Your task to perform on an android device: check out phone information Image 0: 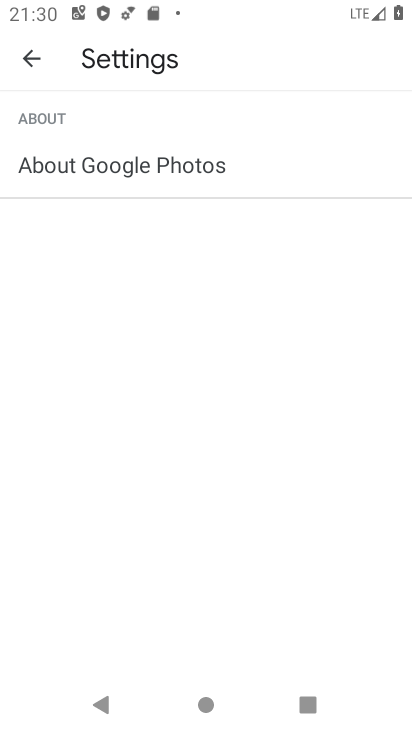
Step 0: press home button
Your task to perform on an android device: check out phone information Image 1: 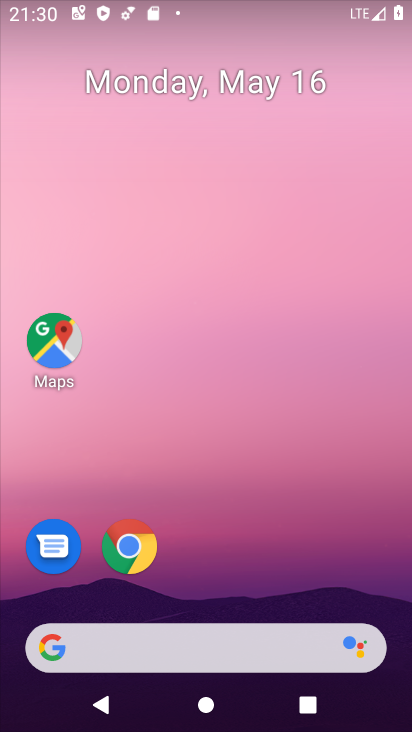
Step 1: drag from (288, 675) to (295, 181)
Your task to perform on an android device: check out phone information Image 2: 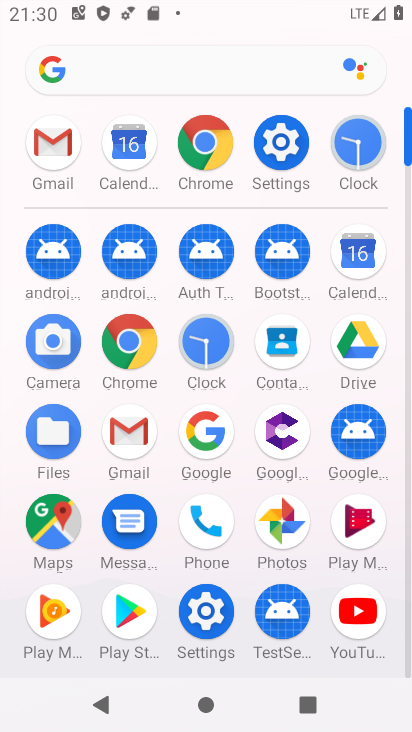
Step 2: click (264, 151)
Your task to perform on an android device: check out phone information Image 3: 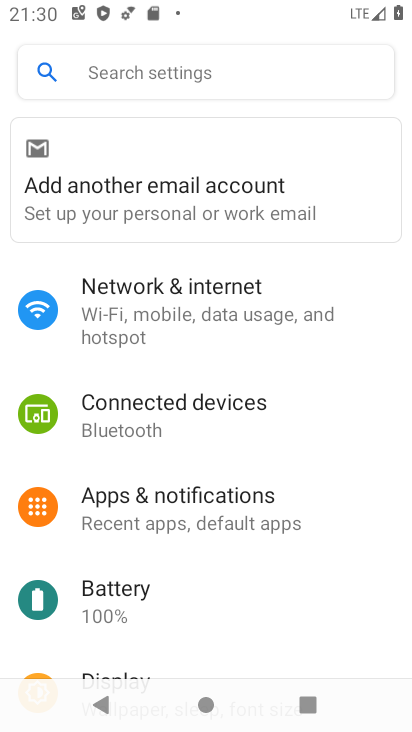
Step 3: click (151, 65)
Your task to perform on an android device: check out phone information Image 4: 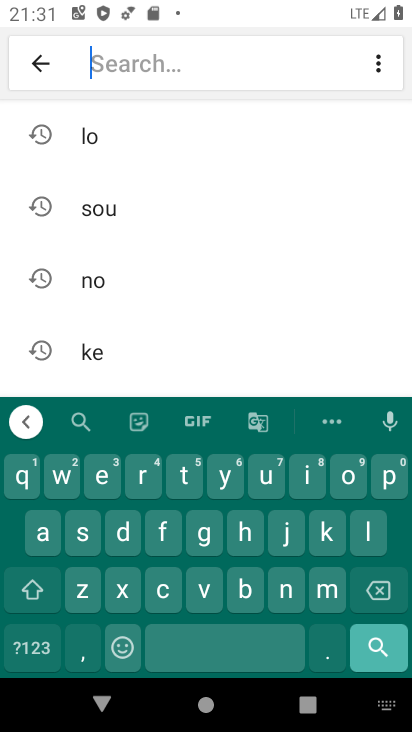
Step 4: click (31, 540)
Your task to perform on an android device: check out phone information Image 5: 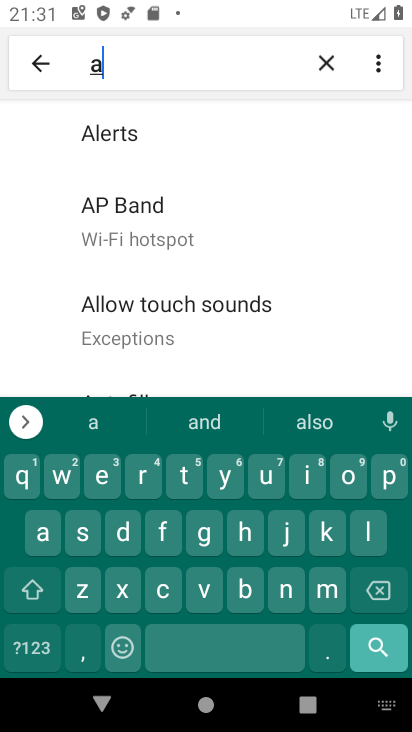
Step 5: click (250, 592)
Your task to perform on an android device: check out phone information Image 6: 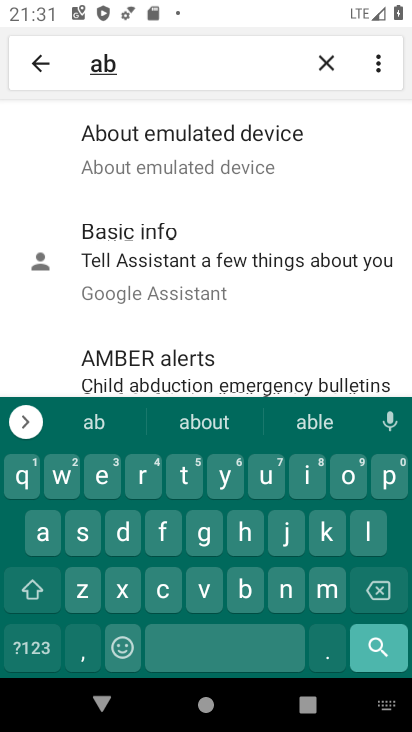
Step 6: click (170, 175)
Your task to perform on an android device: check out phone information Image 7: 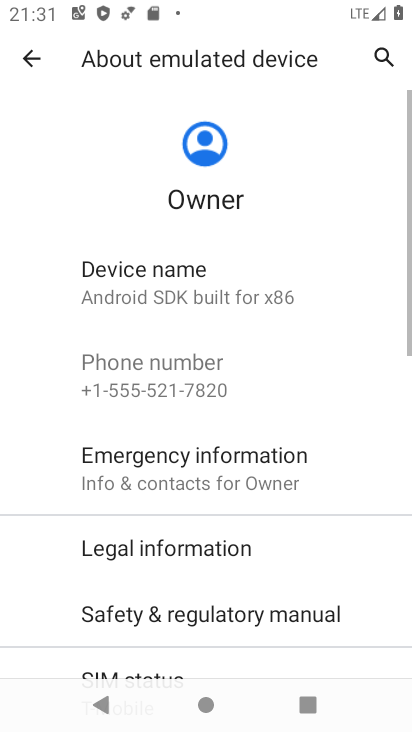
Step 7: task complete